Your task to perform on an android device: Turn on the flashlight Image 0: 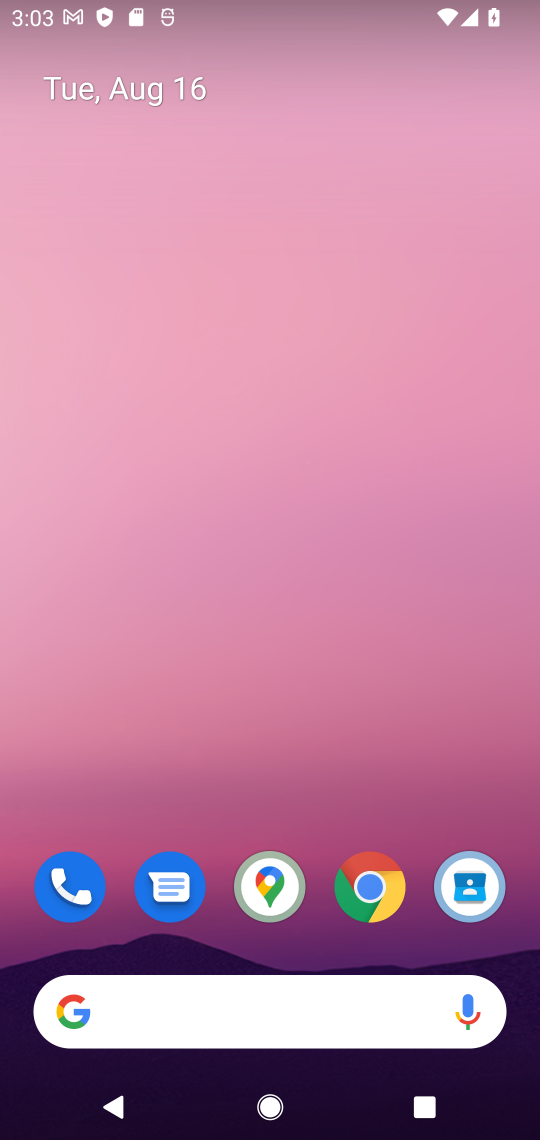
Step 0: drag from (402, 704) to (405, 137)
Your task to perform on an android device: Turn on the flashlight Image 1: 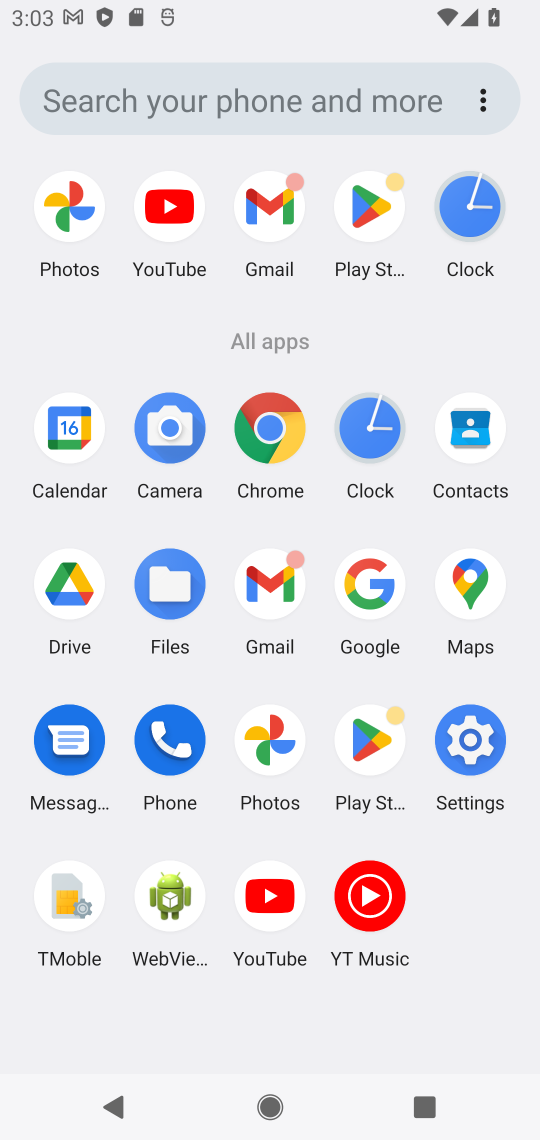
Step 1: click (472, 756)
Your task to perform on an android device: Turn on the flashlight Image 2: 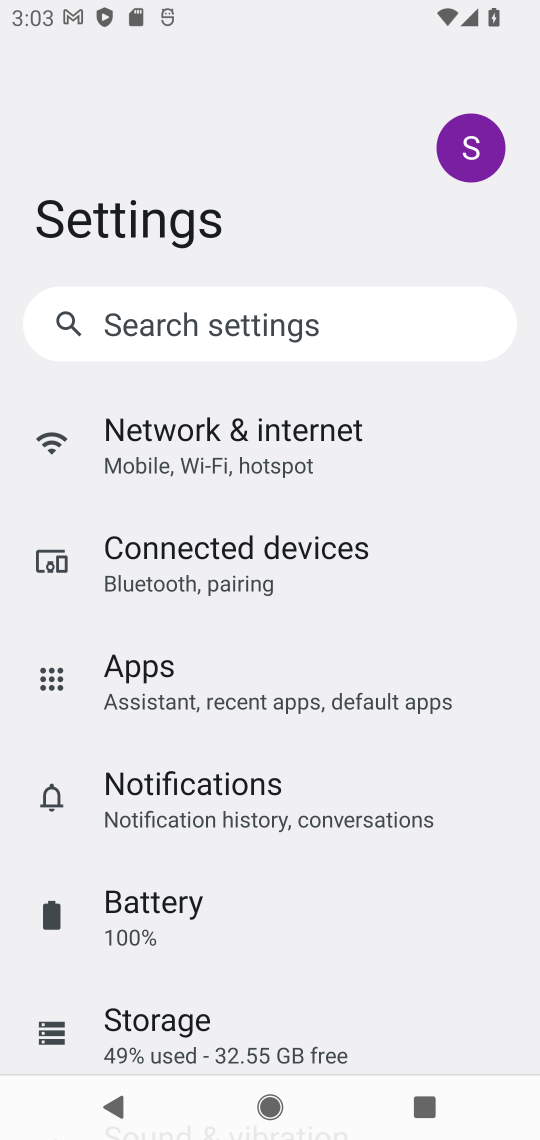
Step 2: drag from (269, 919) to (149, 166)
Your task to perform on an android device: Turn on the flashlight Image 3: 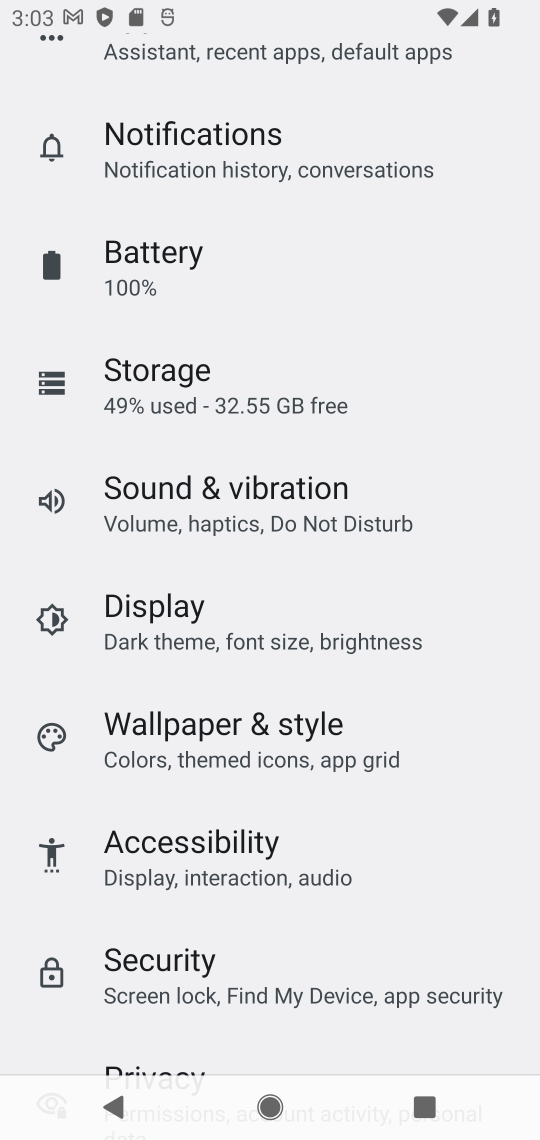
Step 3: drag from (326, 258) to (255, 521)
Your task to perform on an android device: Turn on the flashlight Image 4: 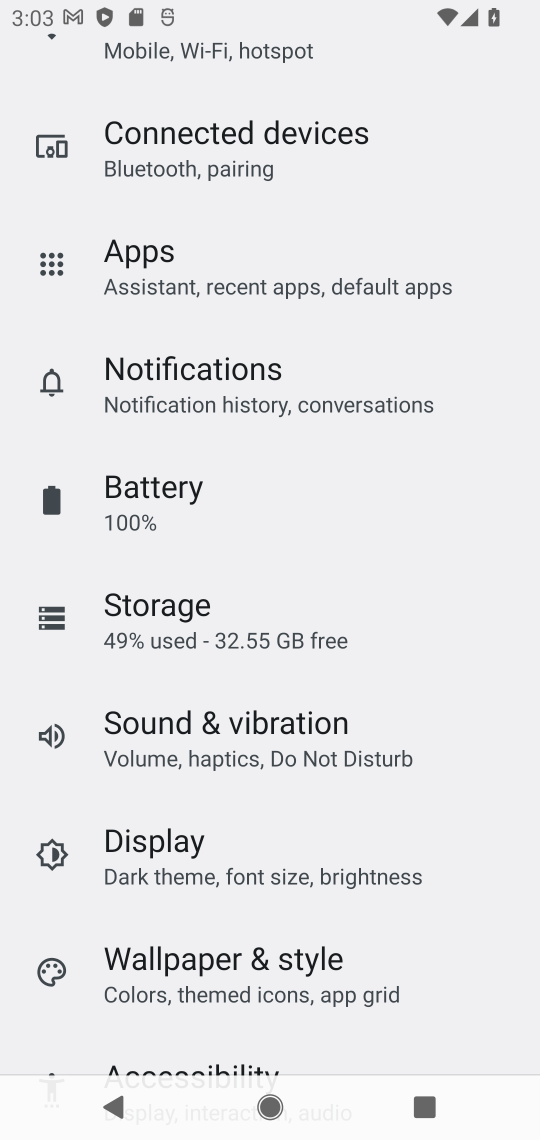
Step 4: click (174, 848)
Your task to perform on an android device: Turn on the flashlight Image 5: 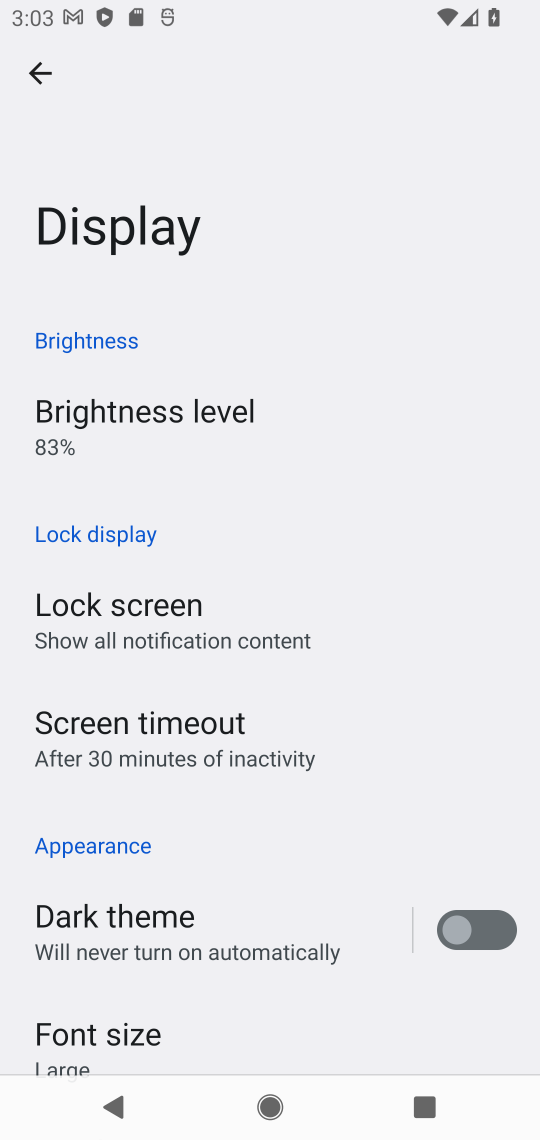
Step 5: task complete